Your task to perform on an android device: Show me the alarms in the clock app Image 0: 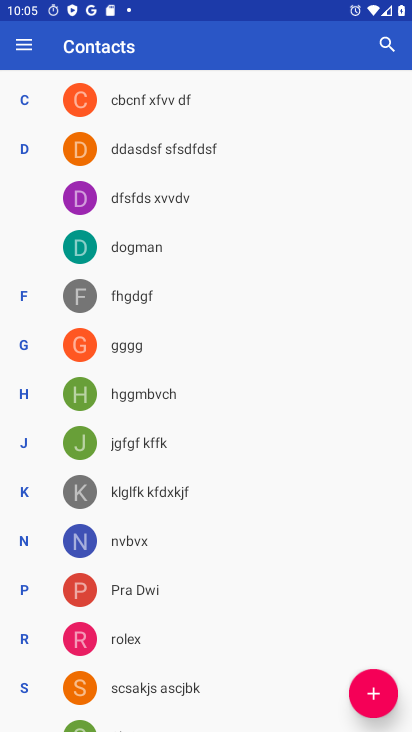
Step 0: press home button
Your task to perform on an android device: Show me the alarms in the clock app Image 1: 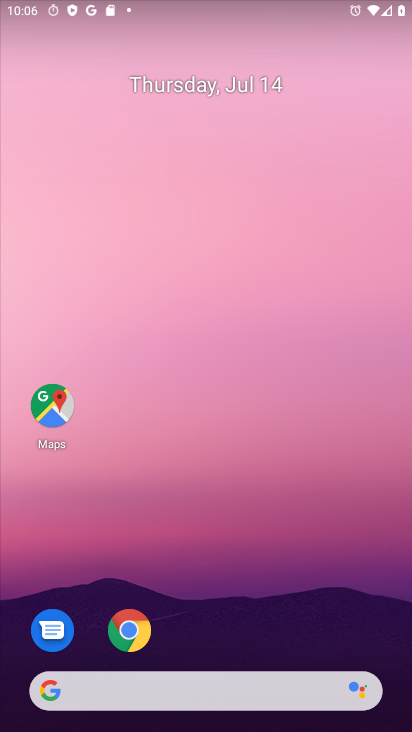
Step 1: drag from (26, 680) to (165, 217)
Your task to perform on an android device: Show me the alarms in the clock app Image 2: 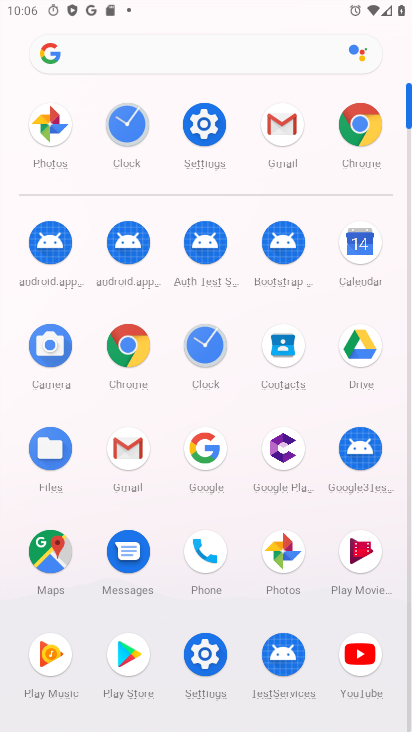
Step 2: click (220, 359)
Your task to perform on an android device: Show me the alarms in the clock app Image 3: 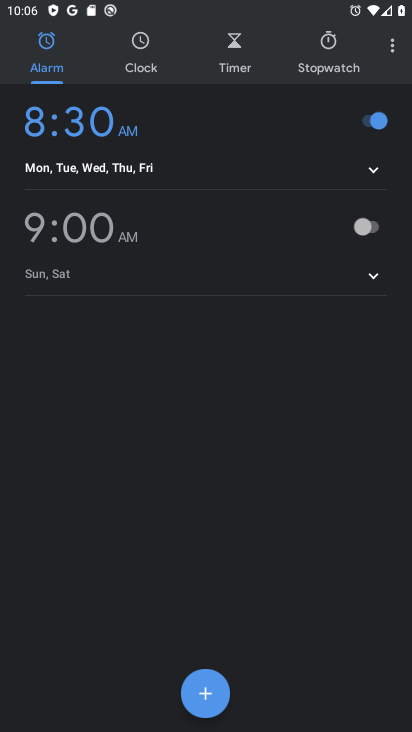
Step 3: task complete